Your task to perform on an android device: Go to display settings Image 0: 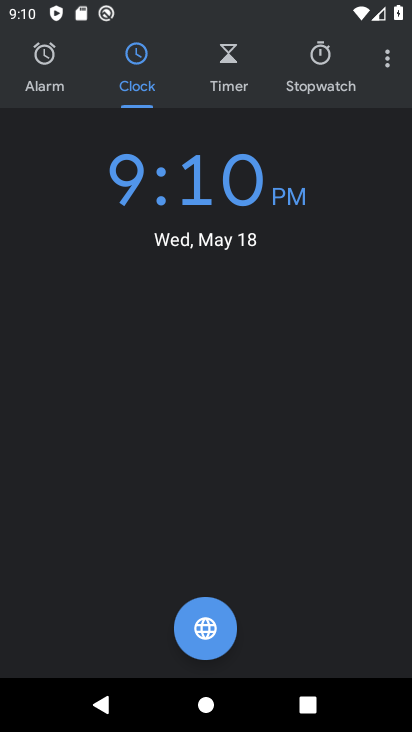
Step 0: press home button
Your task to perform on an android device: Go to display settings Image 1: 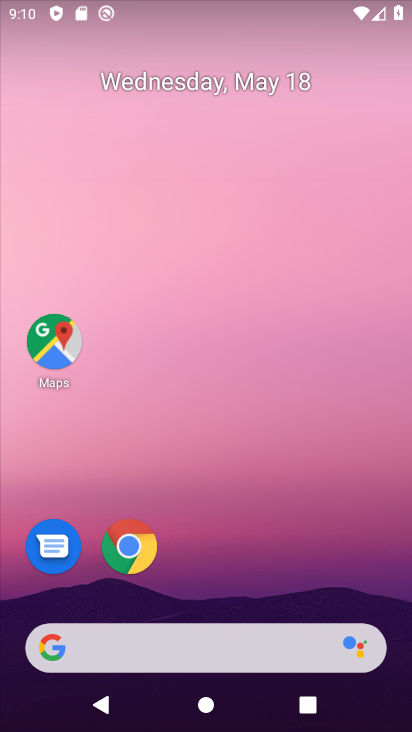
Step 1: drag from (196, 656) to (148, 184)
Your task to perform on an android device: Go to display settings Image 2: 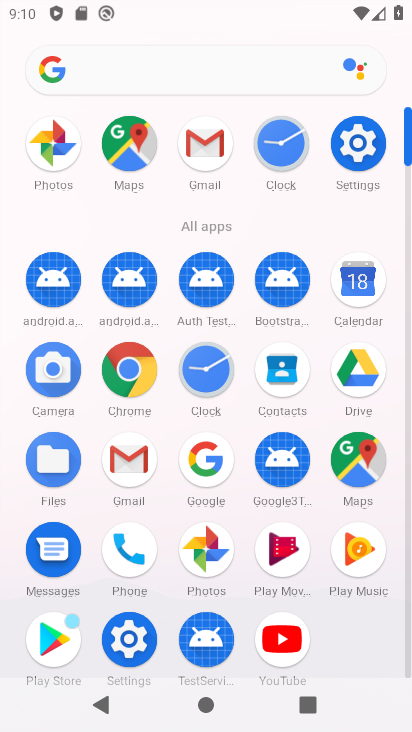
Step 2: click (129, 644)
Your task to perform on an android device: Go to display settings Image 3: 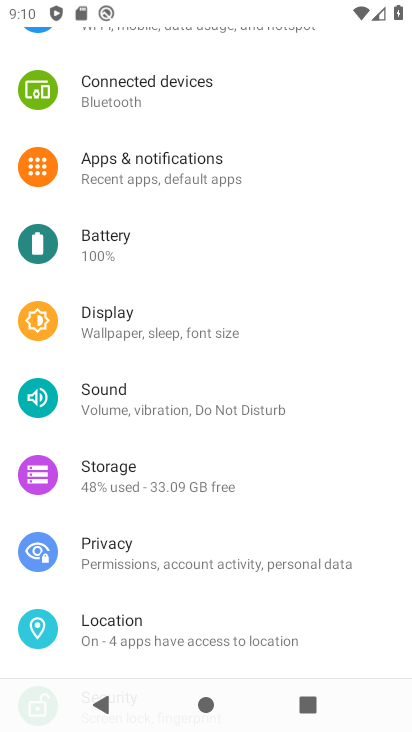
Step 3: click (116, 331)
Your task to perform on an android device: Go to display settings Image 4: 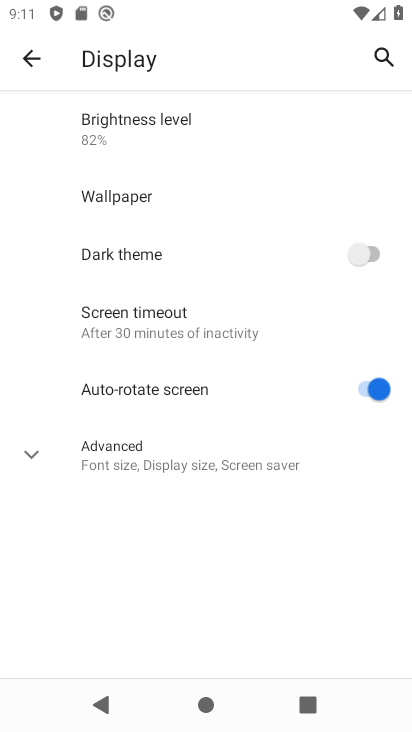
Step 4: task complete